Your task to perform on an android device: delete a single message in the gmail app Image 0: 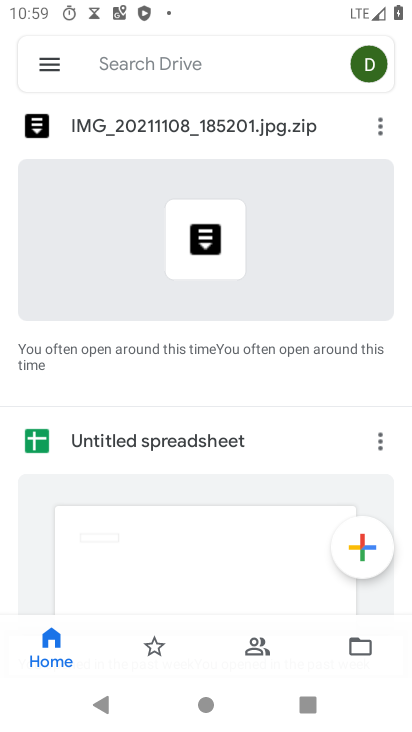
Step 0: press home button
Your task to perform on an android device: delete a single message in the gmail app Image 1: 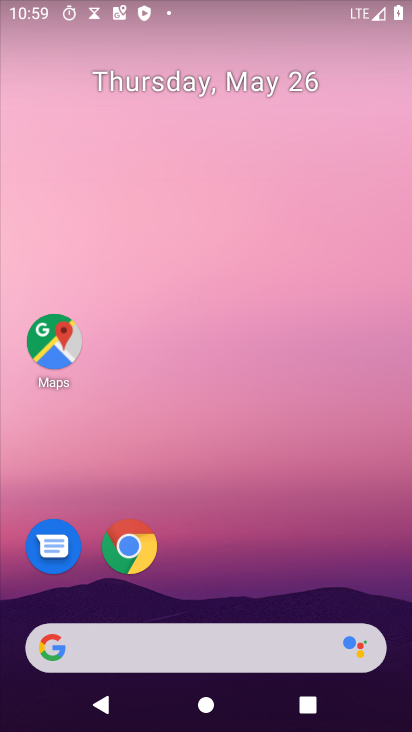
Step 1: drag from (353, 541) to (402, 204)
Your task to perform on an android device: delete a single message in the gmail app Image 2: 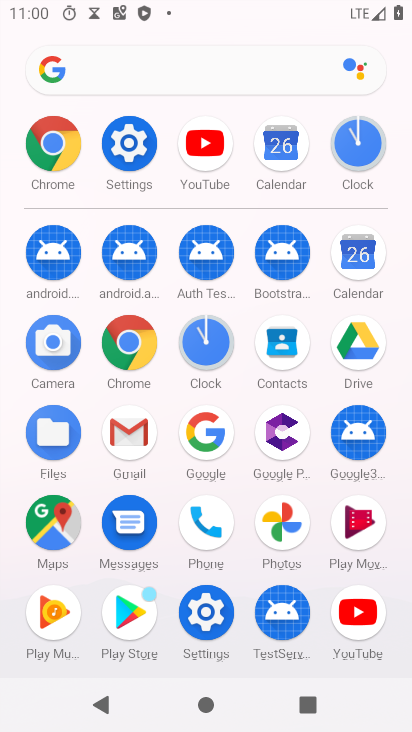
Step 2: click (128, 434)
Your task to perform on an android device: delete a single message in the gmail app Image 3: 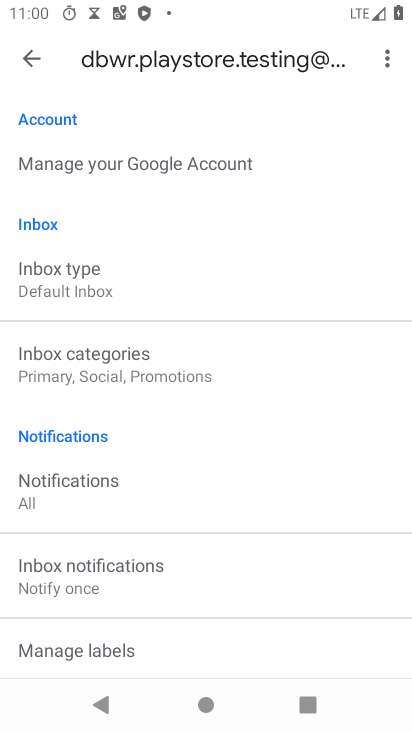
Step 3: click (36, 65)
Your task to perform on an android device: delete a single message in the gmail app Image 4: 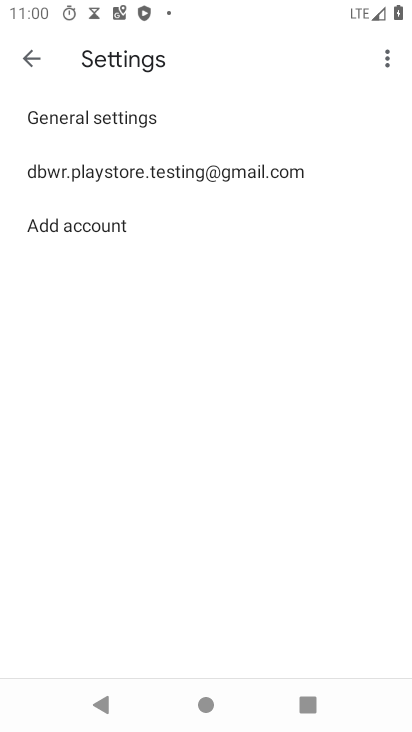
Step 4: click (194, 171)
Your task to perform on an android device: delete a single message in the gmail app Image 5: 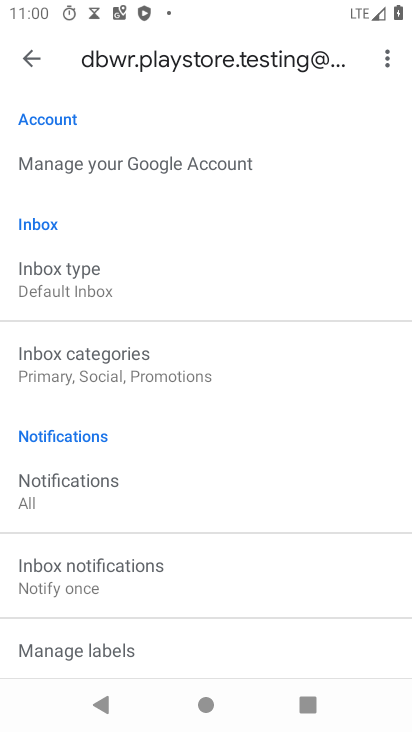
Step 5: click (17, 56)
Your task to perform on an android device: delete a single message in the gmail app Image 6: 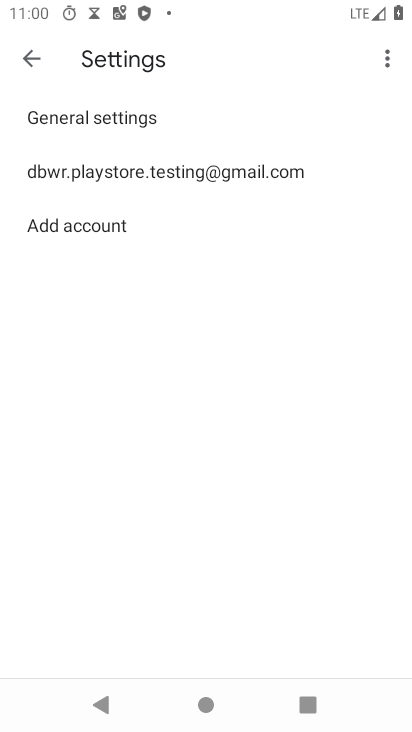
Step 6: click (18, 56)
Your task to perform on an android device: delete a single message in the gmail app Image 7: 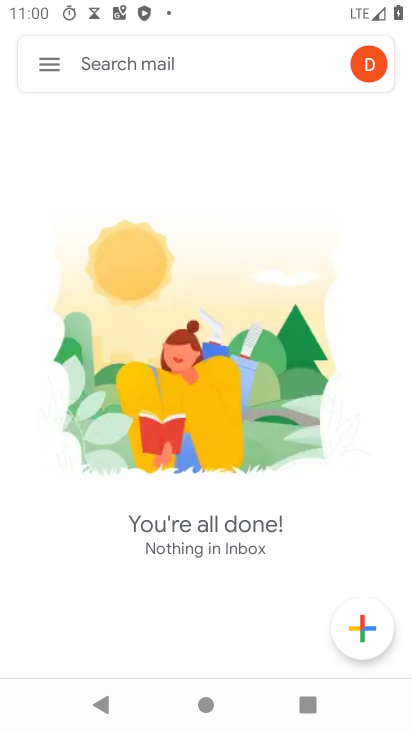
Step 7: click (60, 80)
Your task to perform on an android device: delete a single message in the gmail app Image 8: 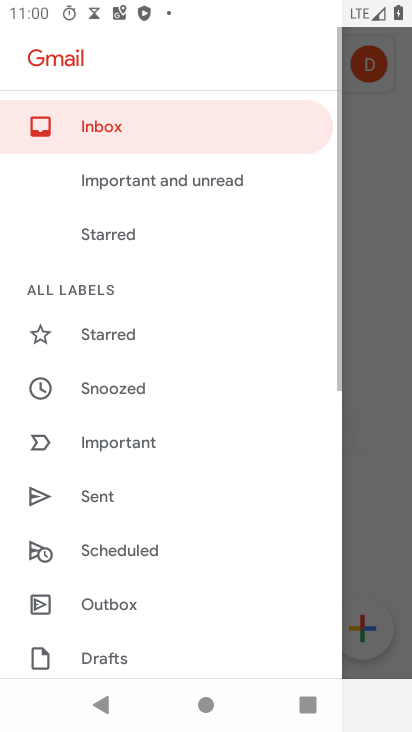
Step 8: drag from (207, 605) to (227, 355)
Your task to perform on an android device: delete a single message in the gmail app Image 9: 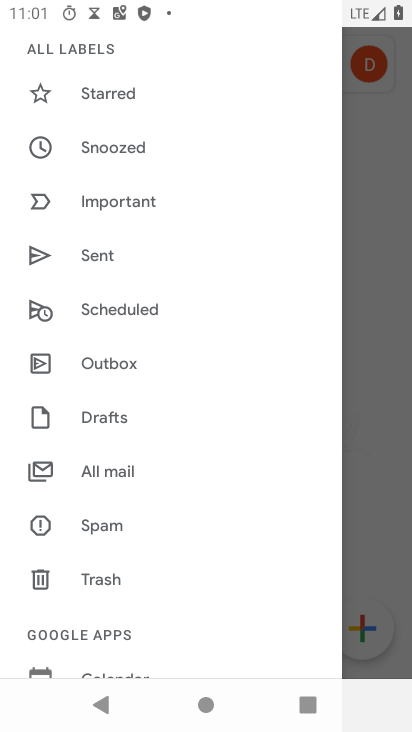
Step 9: click (98, 461)
Your task to perform on an android device: delete a single message in the gmail app Image 10: 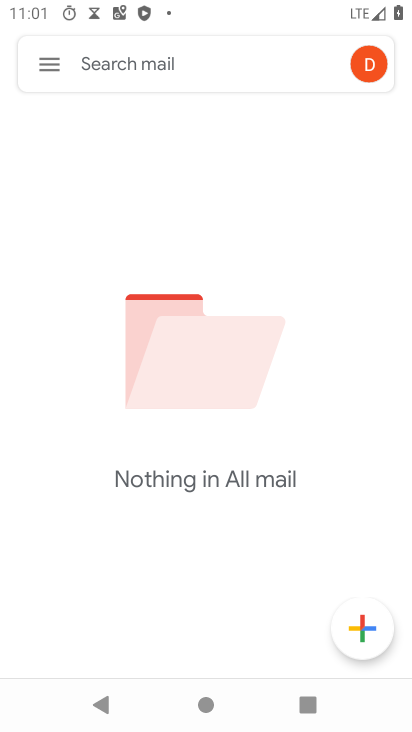
Step 10: task complete